Your task to perform on an android device: Open wifi settings Image 0: 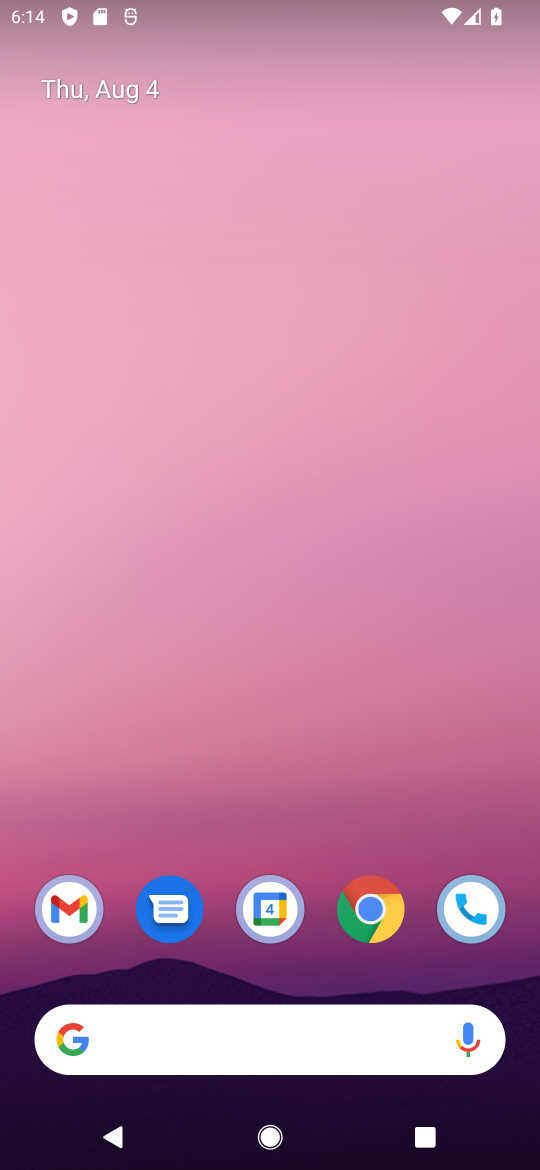
Step 0: drag from (214, 772) to (255, 29)
Your task to perform on an android device: Open wifi settings Image 1: 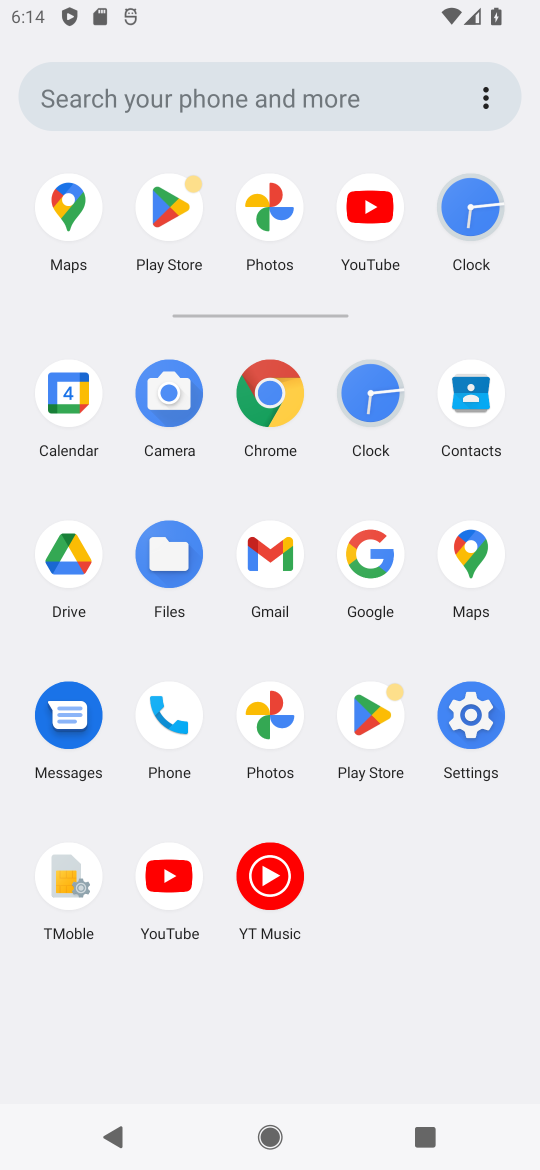
Step 1: click (445, 705)
Your task to perform on an android device: Open wifi settings Image 2: 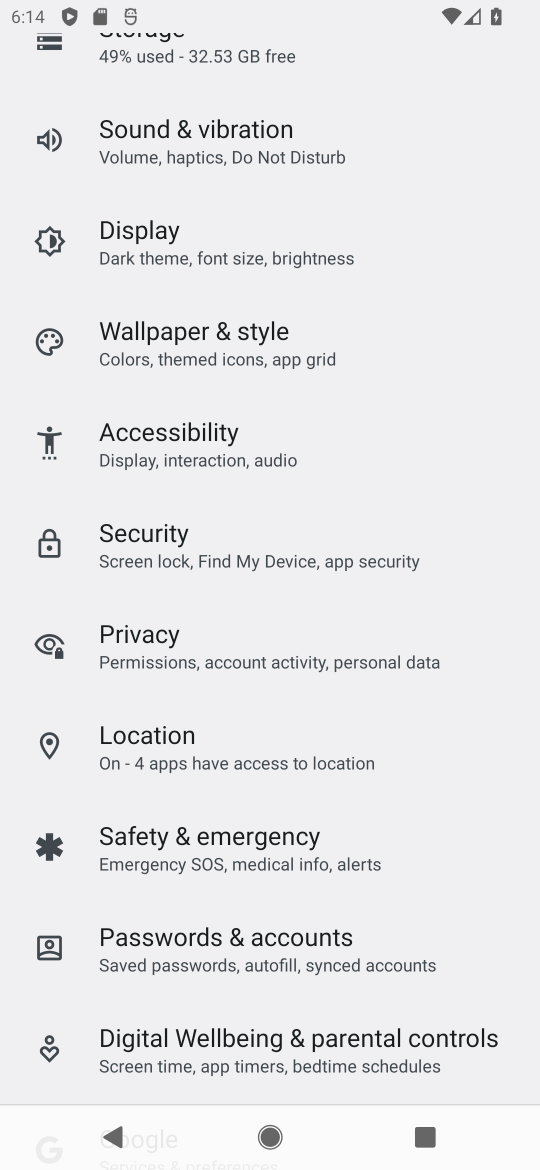
Step 2: drag from (252, 323) to (342, 1030)
Your task to perform on an android device: Open wifi settings Image 3: 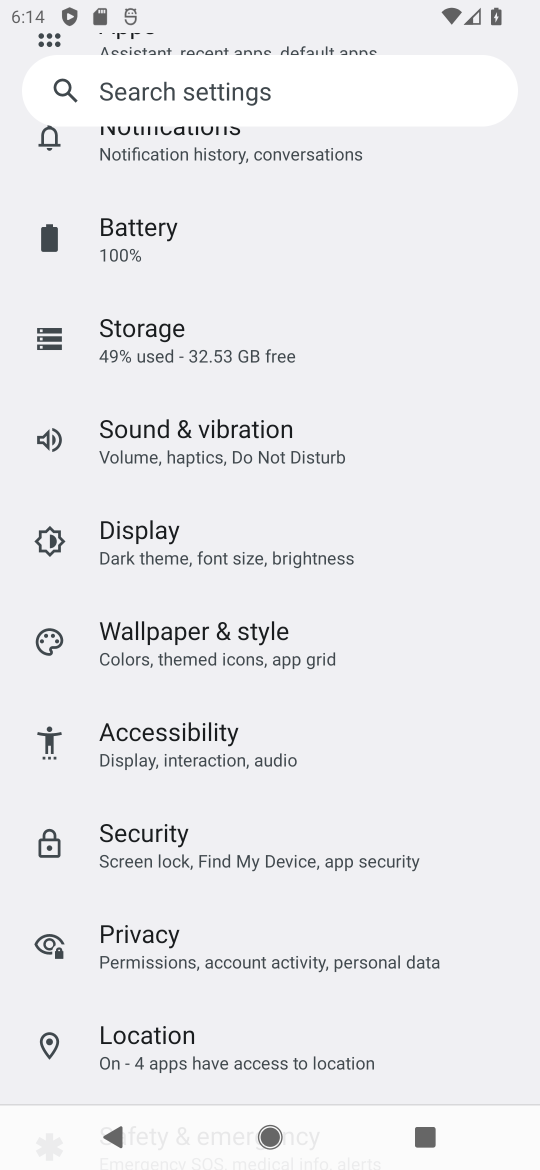
Step 3: drag from (189, 307) to (319, 1055)
Your task to perform on an android device: Open wifi settings Image 4: 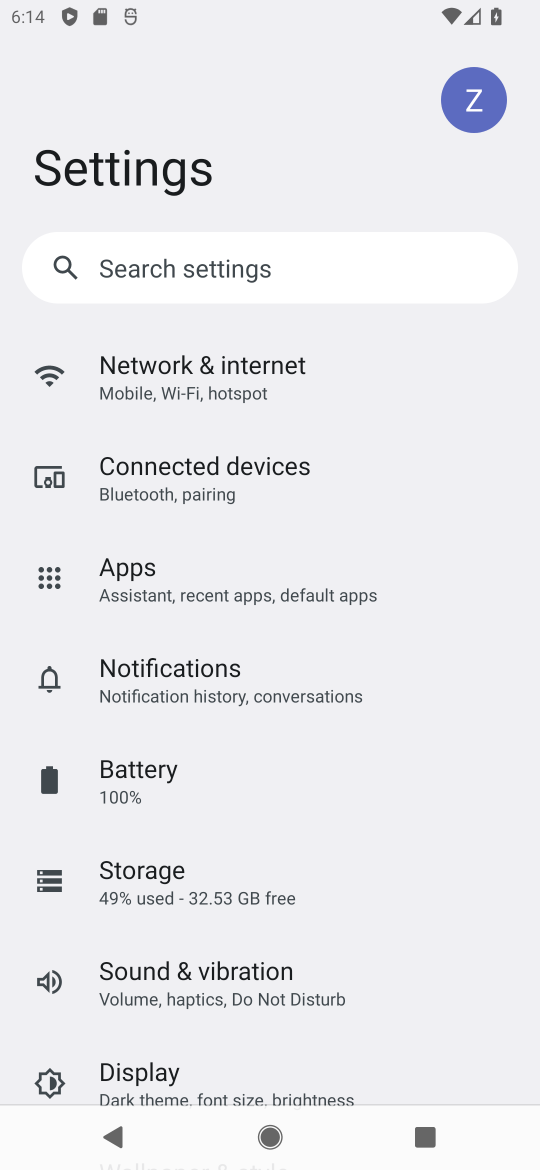
Step 4: click (136, 390)
Your task to perform on an android device: Open wifi settings Image 5: 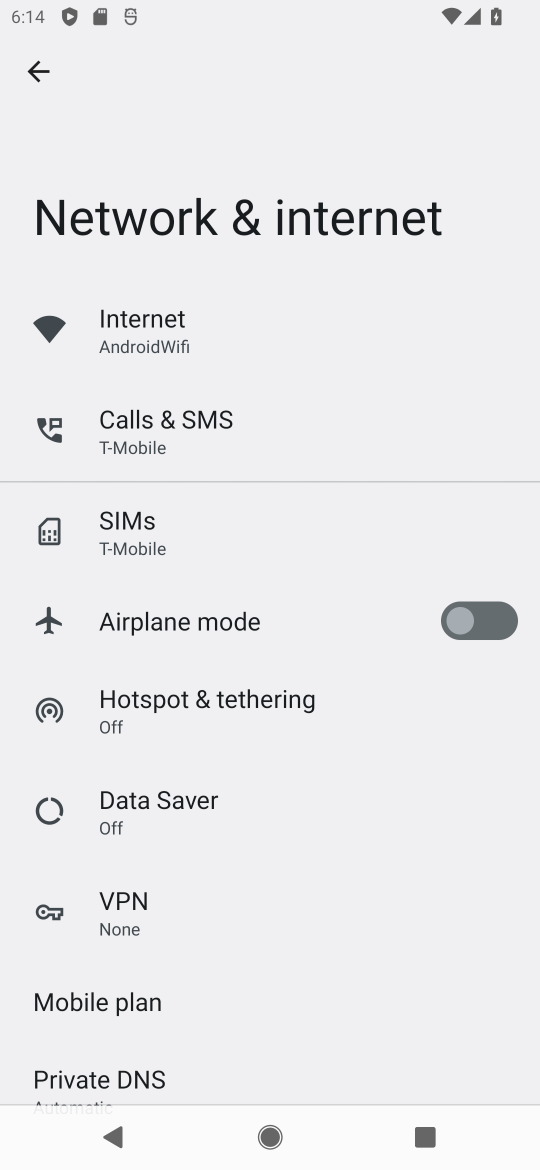
Step 5: click (125, 353)
Your task to perform on an android device: Open wifi settings Image 6: 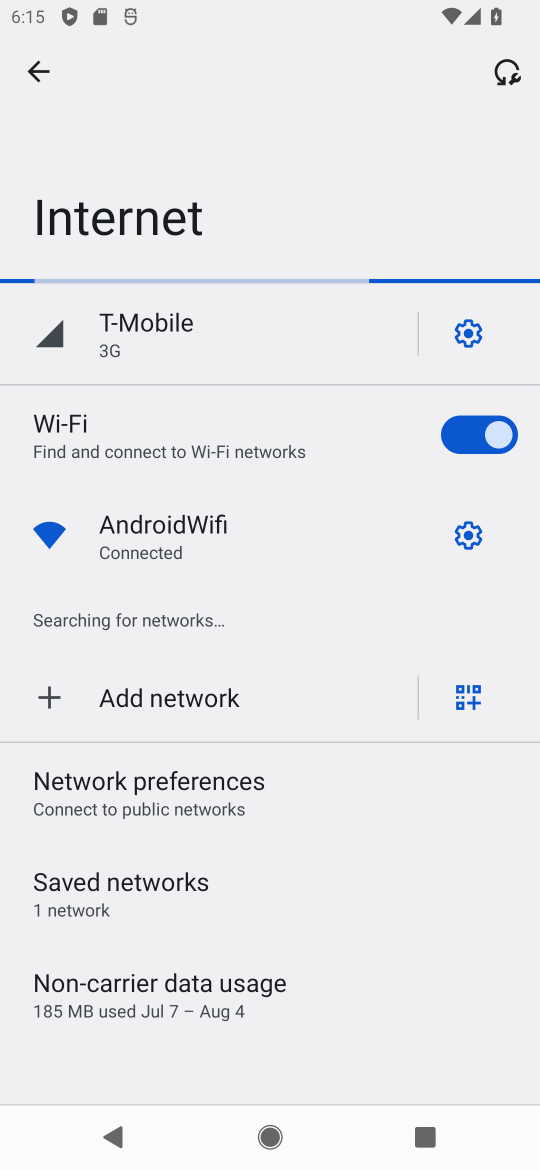
Step 6: click (168, 453)
Your task to perform on an android device: Open wifi settings Image 7: 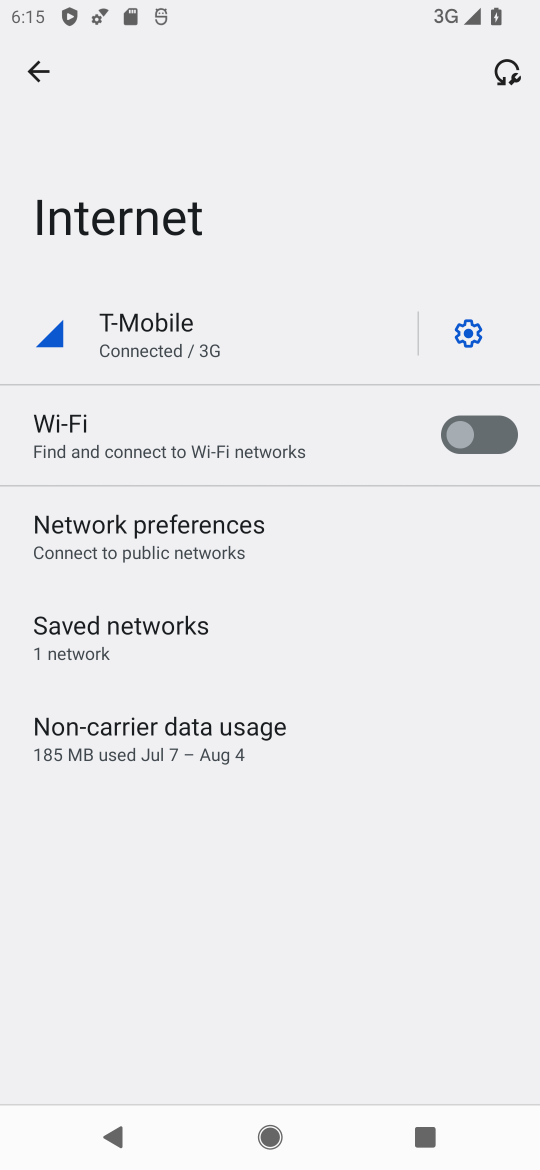
Step 7: task complete